Your task to perform on an android device: open app "Facebook Messenger" (install if not already installed) Image 0: 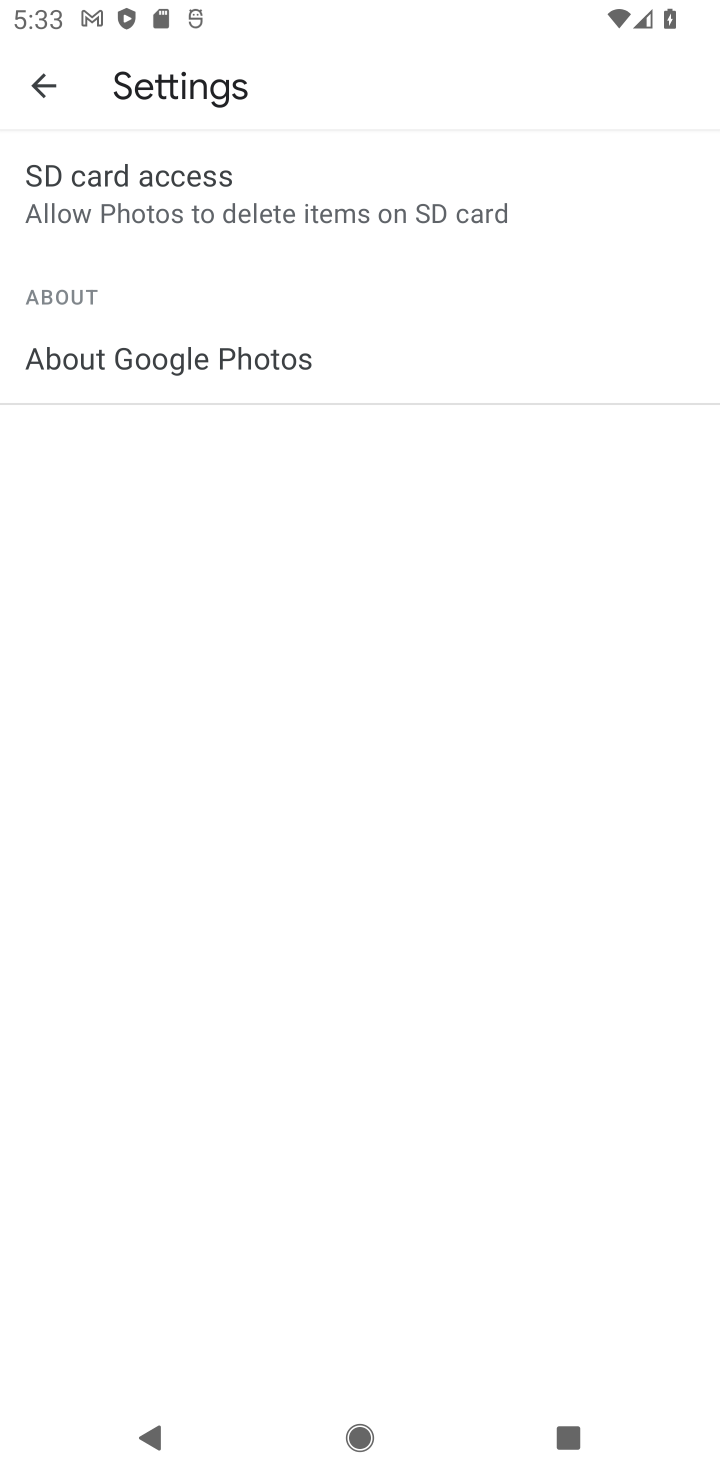
Step 0: press home button
Your task to perform on an android device: open app "Facebook Messenger" (install if not already installed) Image 1: 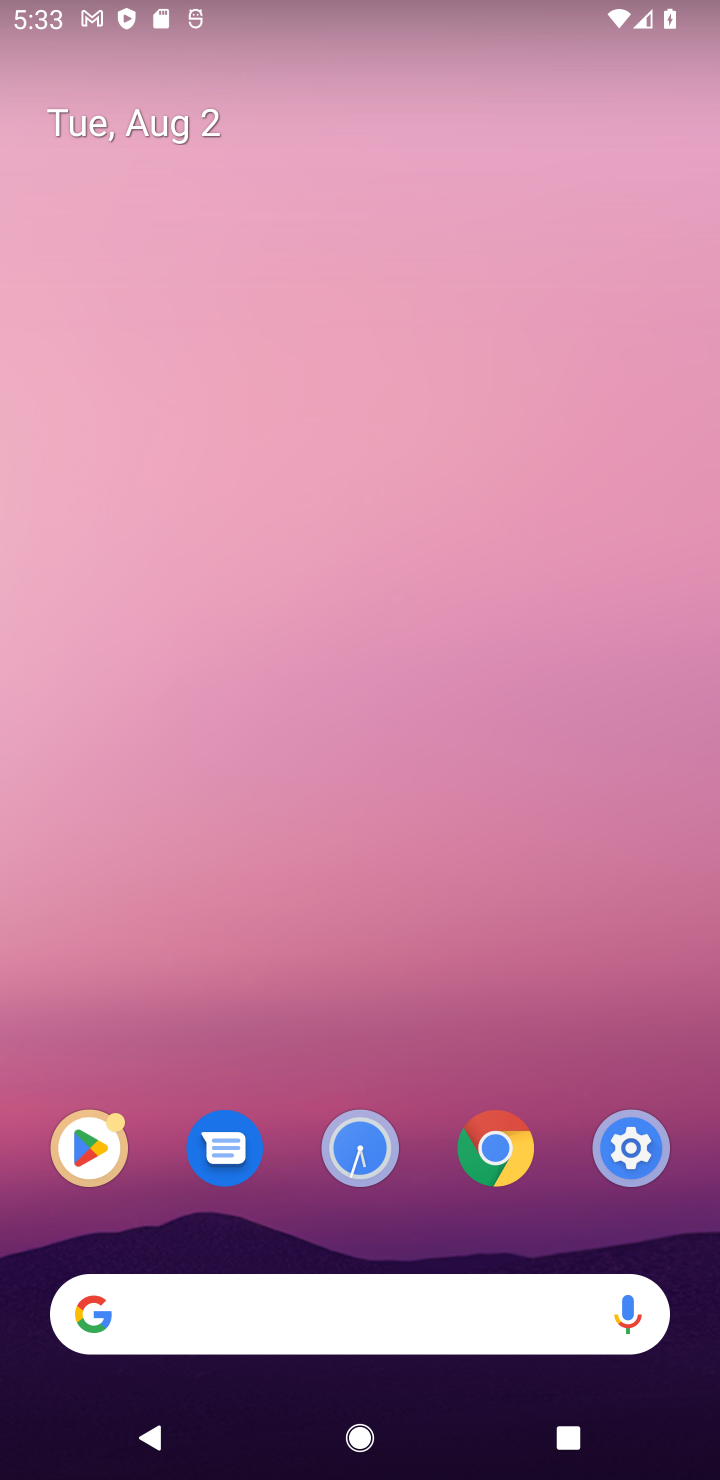
Step 1: drag from (547, 777) to (333, 38)
Your task to perform on an android device: open app "Facebook Messenger" (install if not already installed) Image 2: 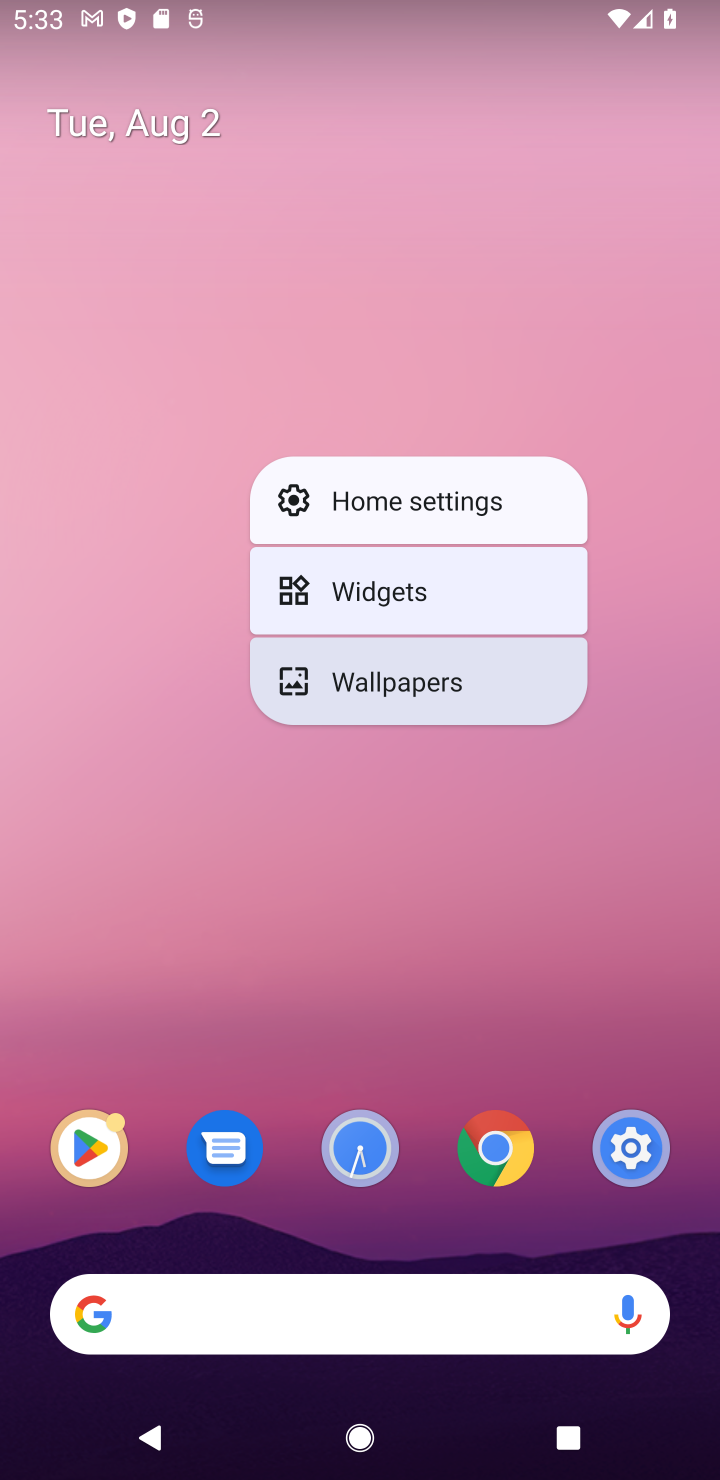
Step 2: click (650, 908)
Your task to perform on an android device: open app "Facebook Messenger" (install if not already installed) Image 3: 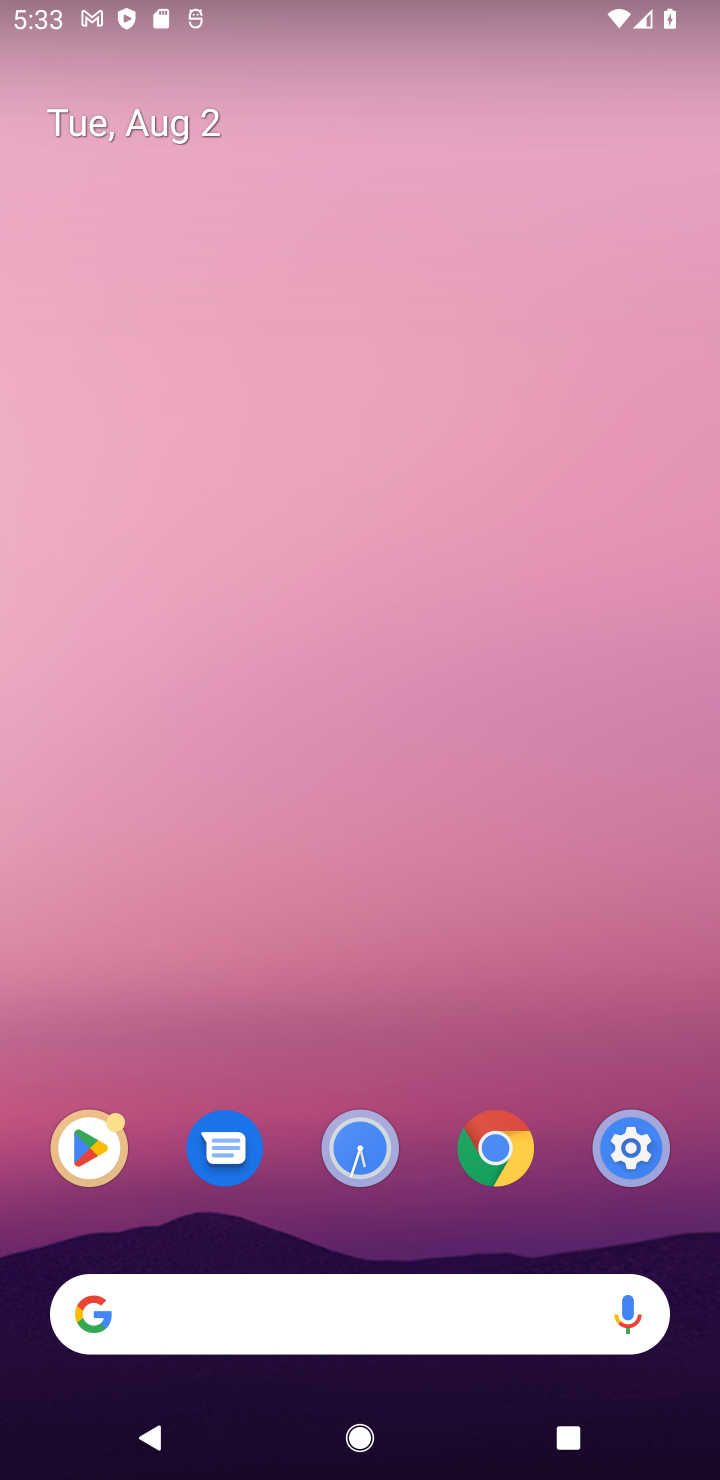
Step 3: drag from (516, 761) to (290, 25)
Your task to perform on an android device: open app "Facebook Messenger" (install if not already installed) Image 4: 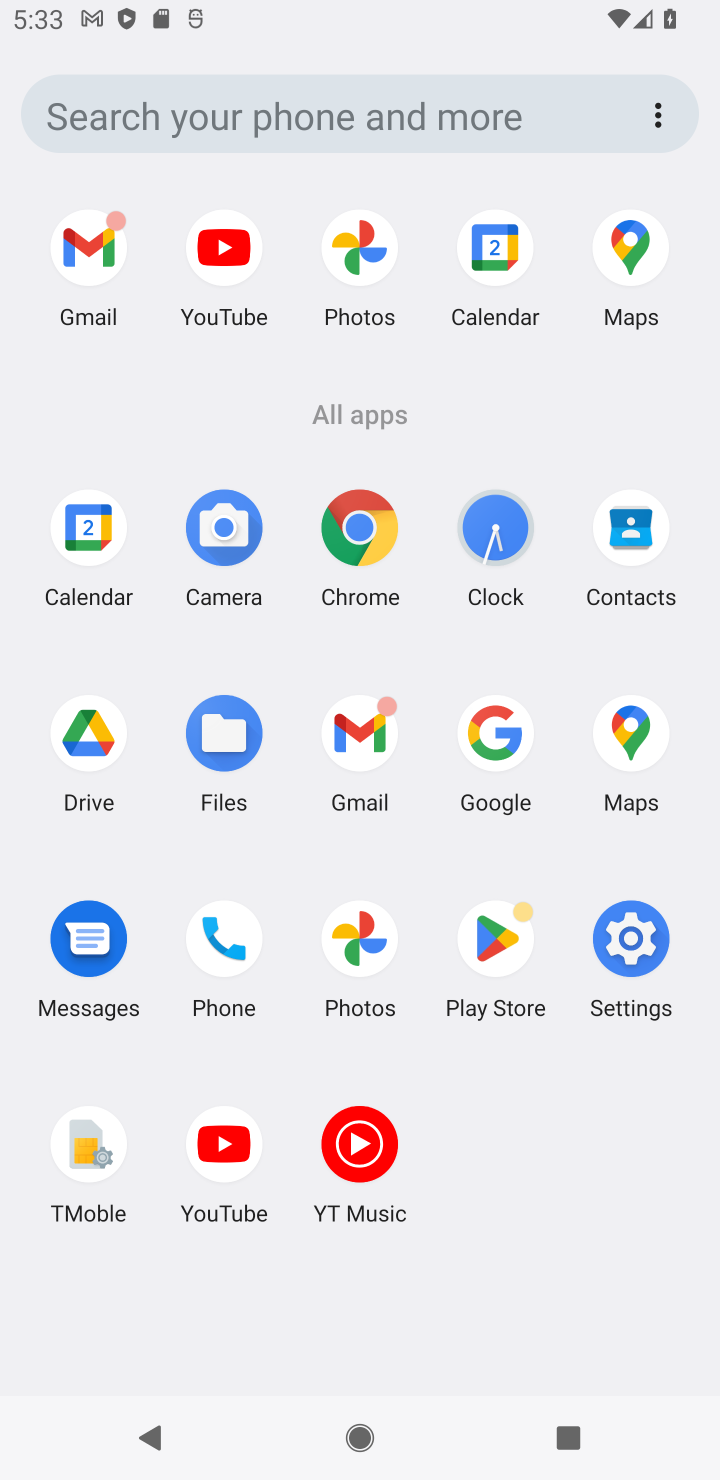
Step 4: click (514, 951)
Your task to perform on an android device: open app "Facebook Messenger" (install if not already installed) Image 5: 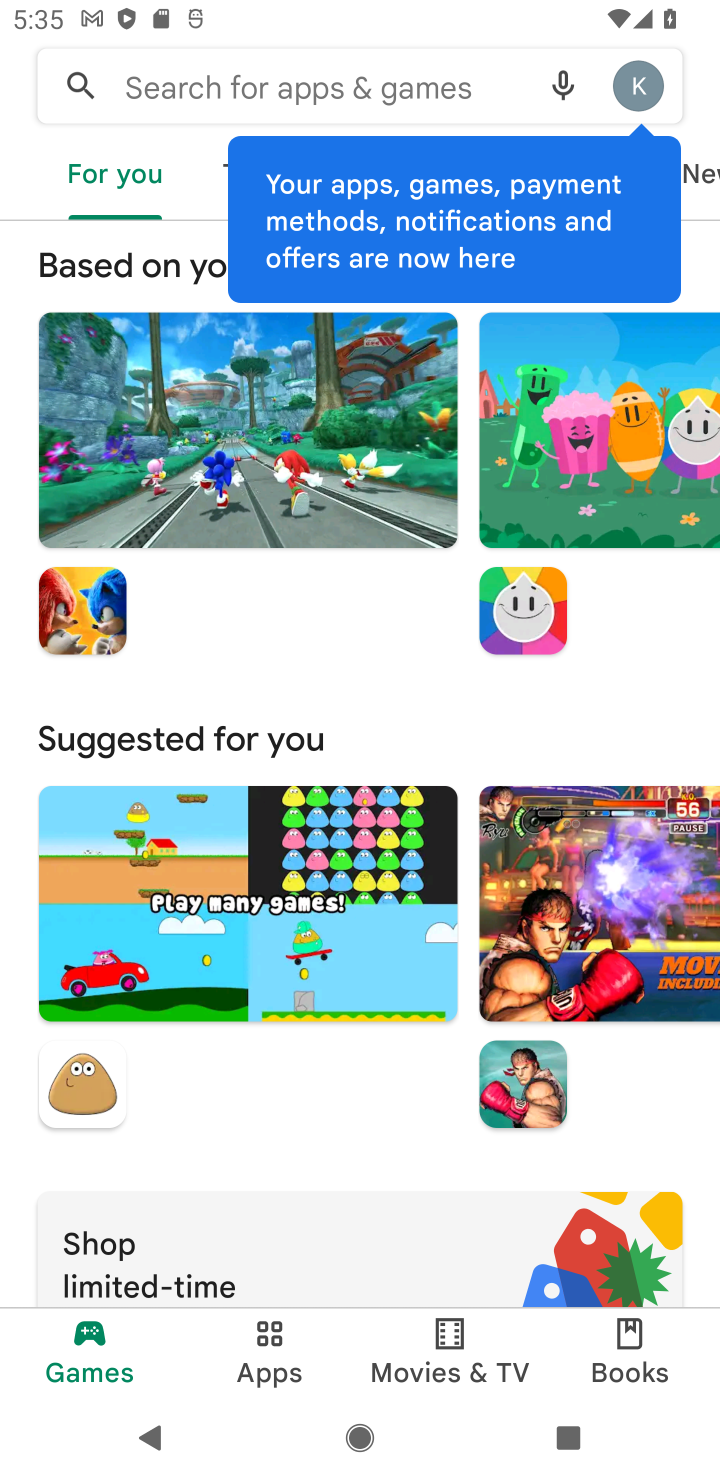
Step 5: click (309, 88)
Your task to perform on an android device: open app "Facebook Messenger" (install if not already installed) Image 6: 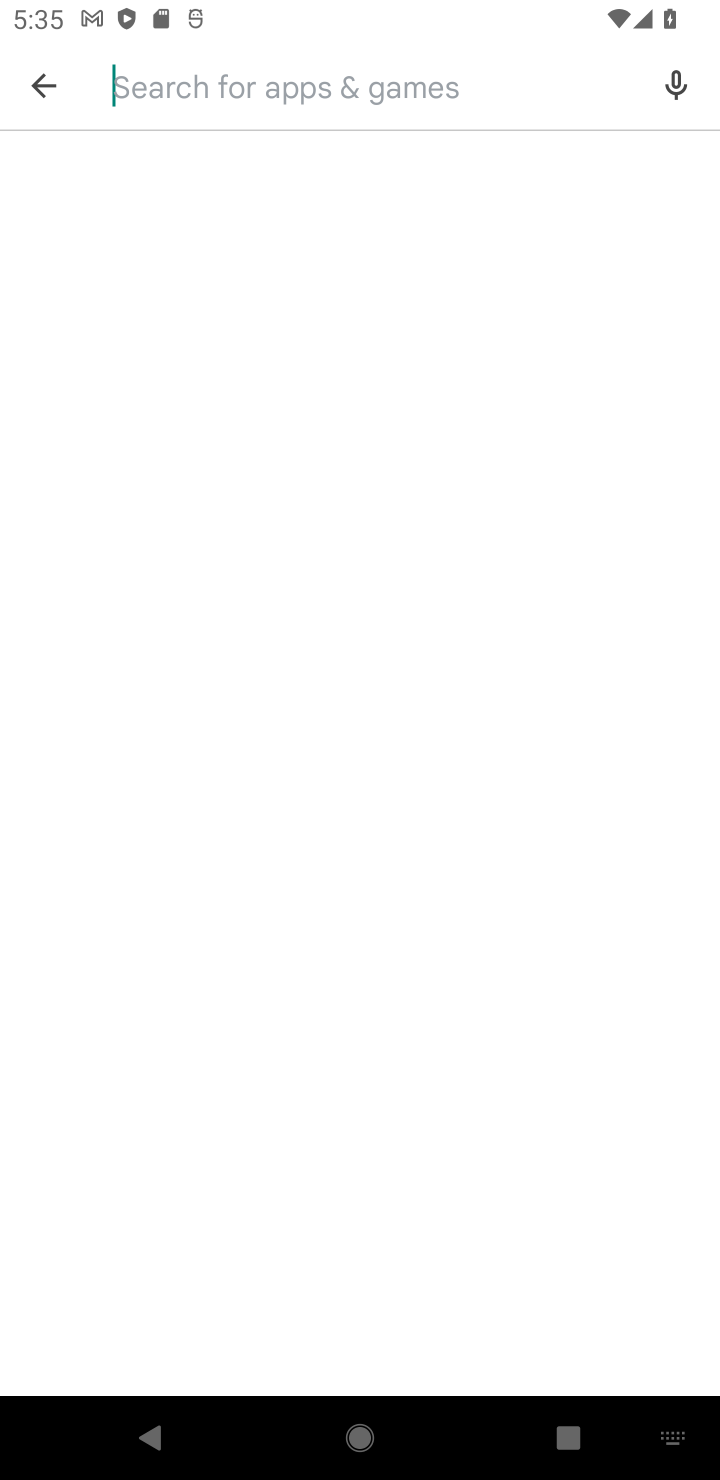
Step 6: type "Facebook Messenger"
Your task to perform on an android device: open app "Facebook Messenger" (install if not already installed) Image 7: 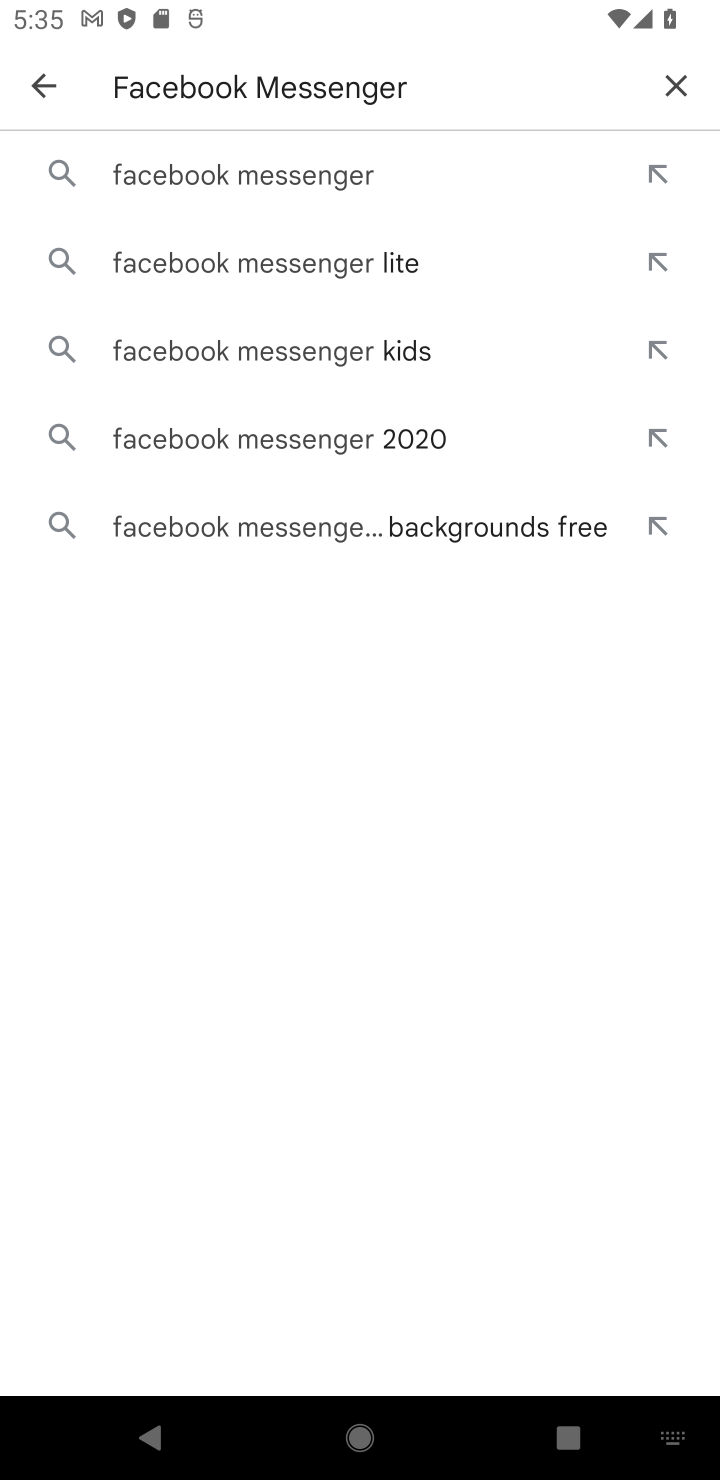
Step 7: click (257, 180)
Your task to perform on an android device: open app "Facebook Messenger" (install if not already installed) Image 8: 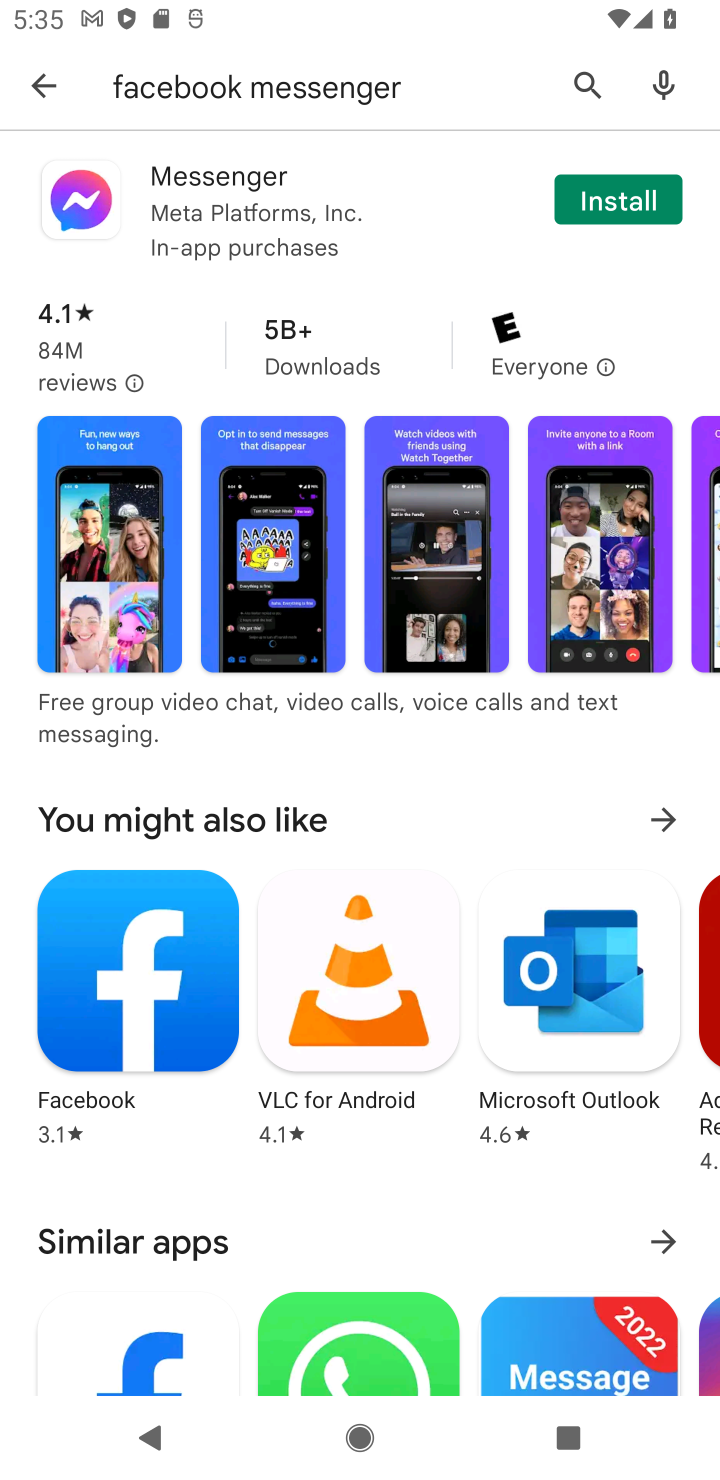
Step 8: task complete